Your task to perform on an android device: Is it going to rain tomorrow? Image 0: 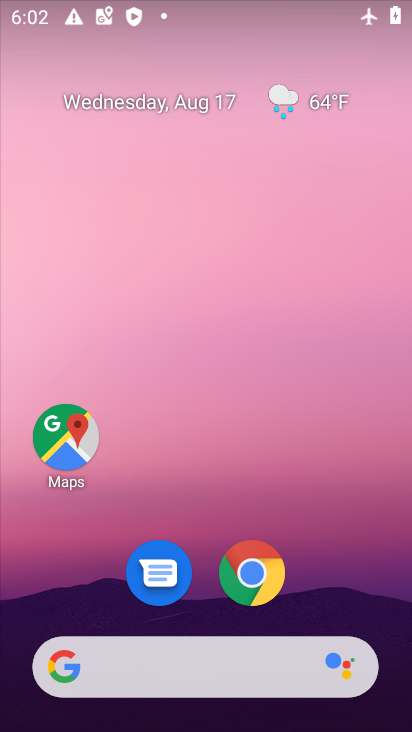
Step 0: drag from (344, 484) to (297, 132)
Your task to perform on an android device: Is it going to rain tomorrow? Image 1: 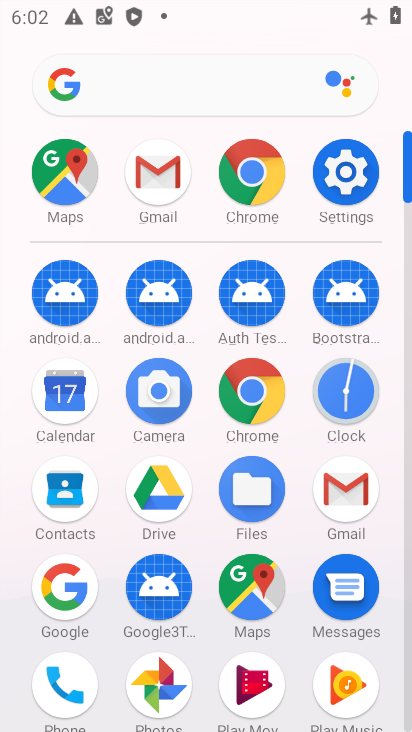
Step 1: click (85, 403)
Your task to perform on an android device: Is it going to rain tomorrow? Image 2: 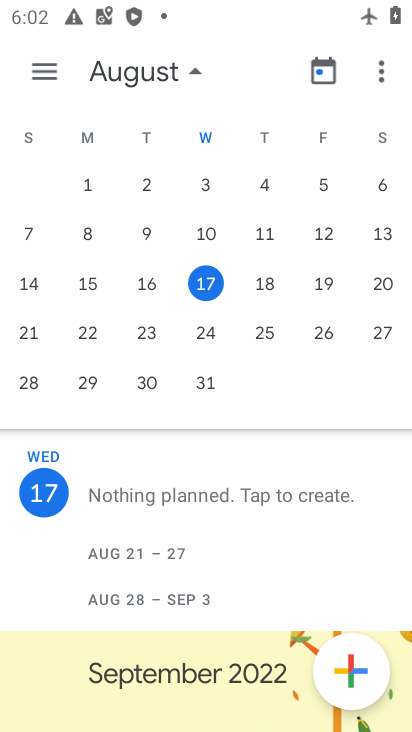
Step 2: click (263, 286)
Your task to perform on an android device: Is it going to rain tomorrow? Image 3: 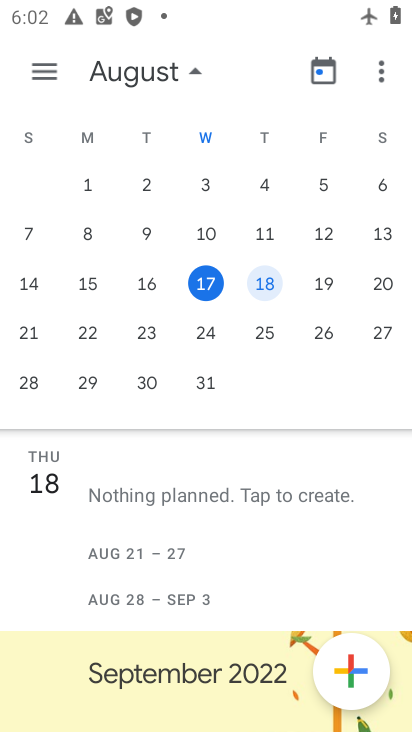
Step 3: task complete